Your task to perform on an android device: Show the shopping cart on costco. Add energizer triple a to the cart on costco Image 0: 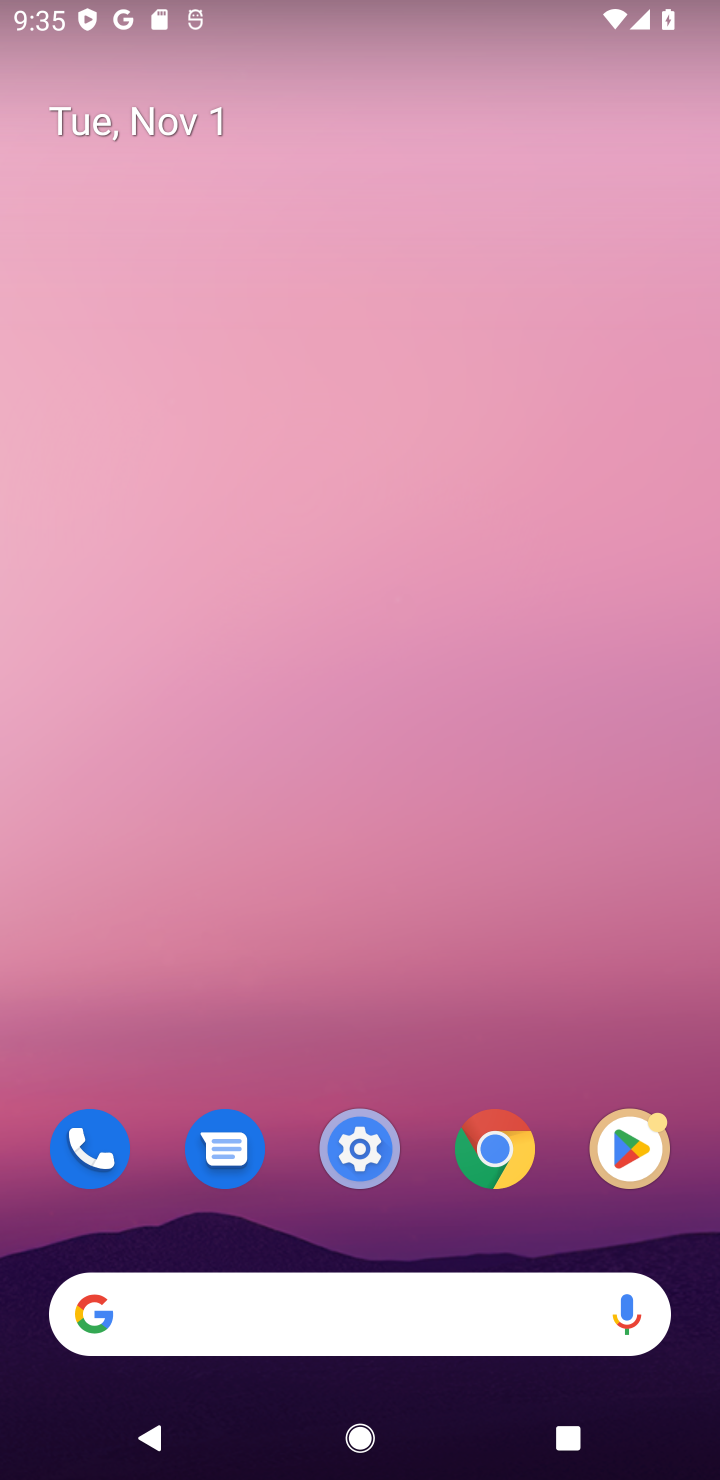
Step 0: press home button
Your task to perform on an android device: Show the shopping cart on costco. Add energizer triple a to the cart on costco Image 1: 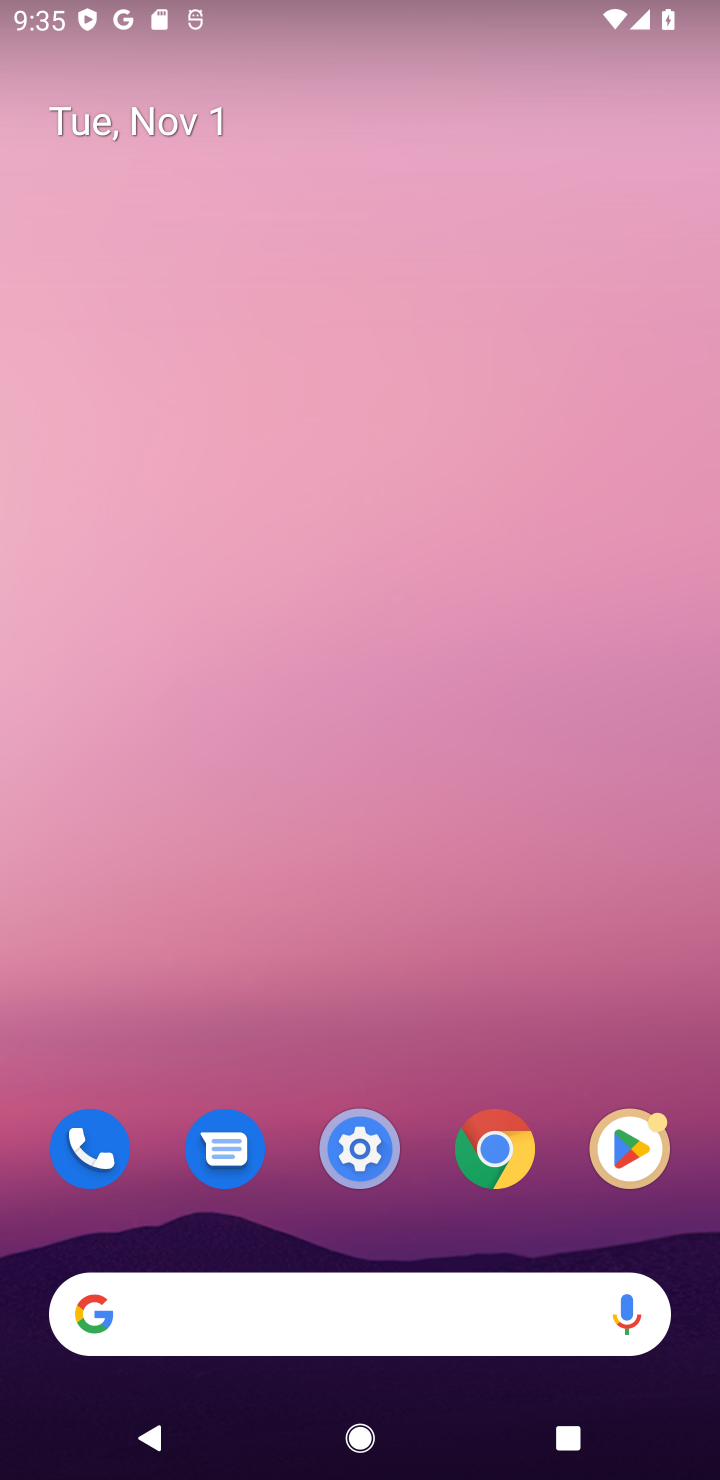
Step 1: click (152, 1314)
Your task to perform on an android device: Show the shopping cart on costco. Add energizer triple a to the cart on costco Image 2: 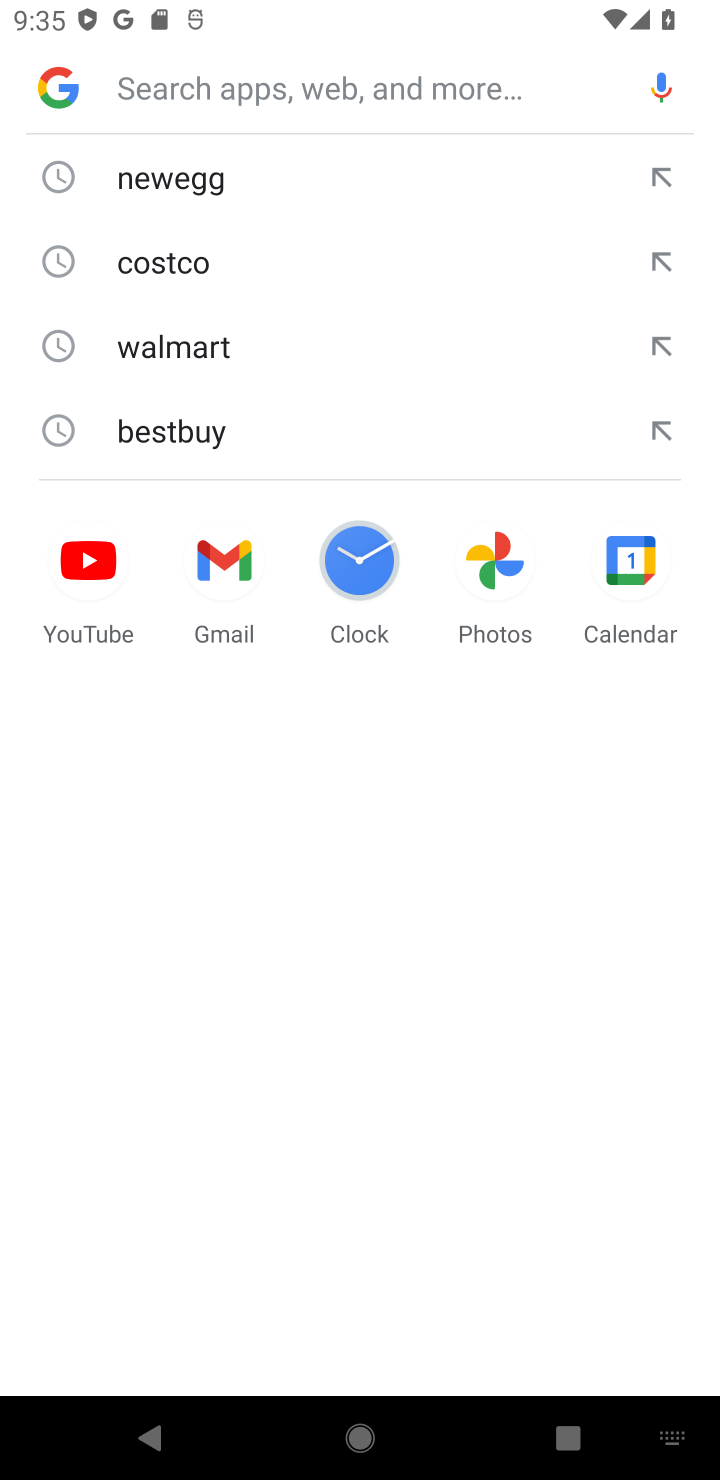
Step 2: type "costco"
Your task to perform on an android device: Show the shopping cart on costco. Add energizer triple a to the cart on costco Image 3: 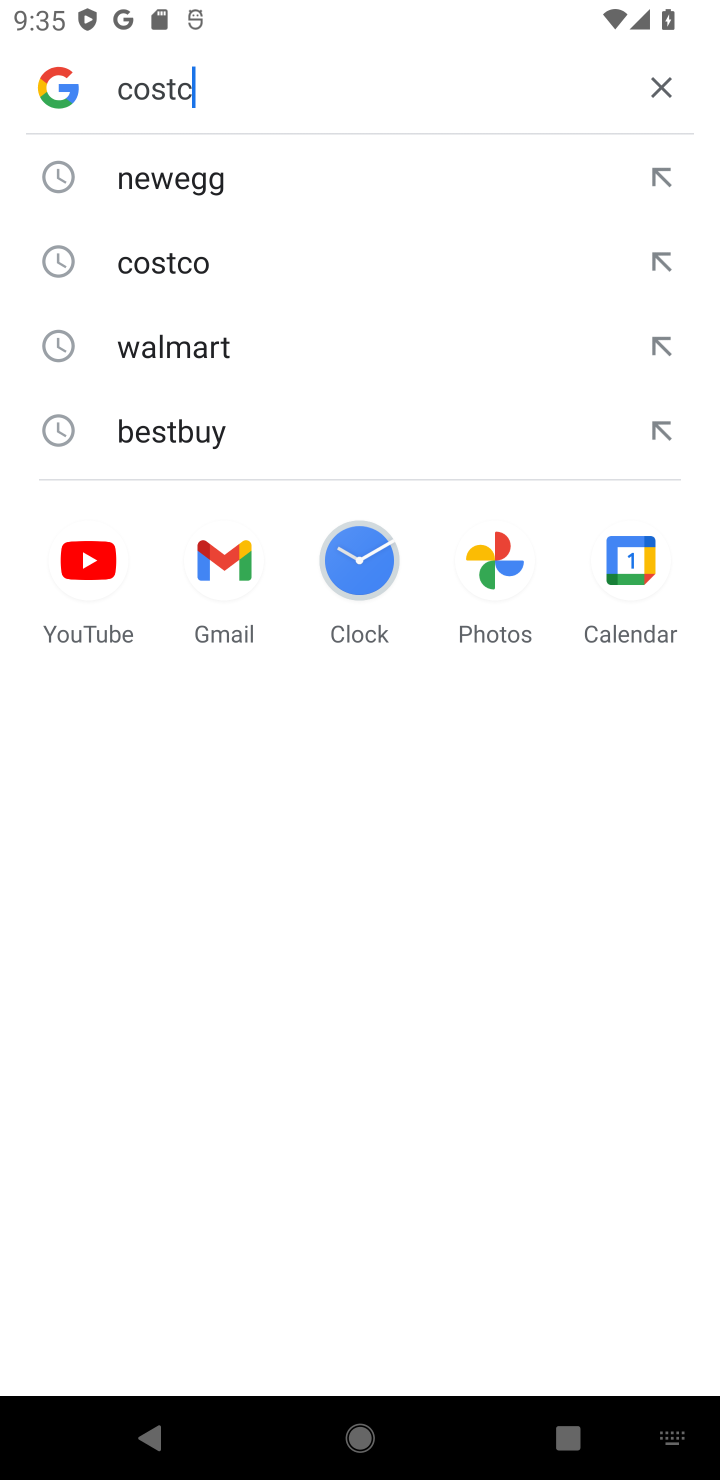
Step 3: press enter
Your task to perform on an android device: Show the shopping cart on costco. Add energizer triple a to the cart on costco Image 4: 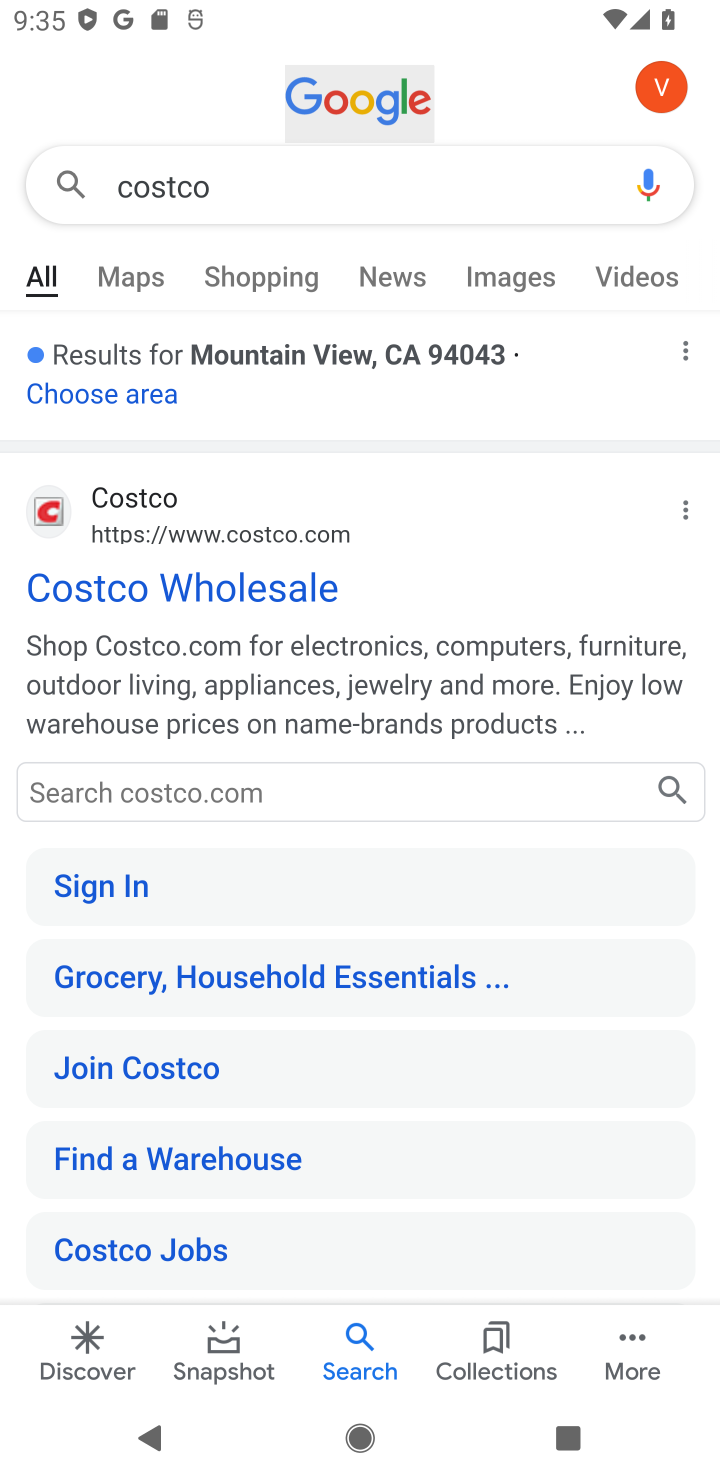
Step 4: click (193, 584)
Your task to perform on an android device: Show the shopping cart on costco. Add energizer triple a to the cart on costco Image 5: 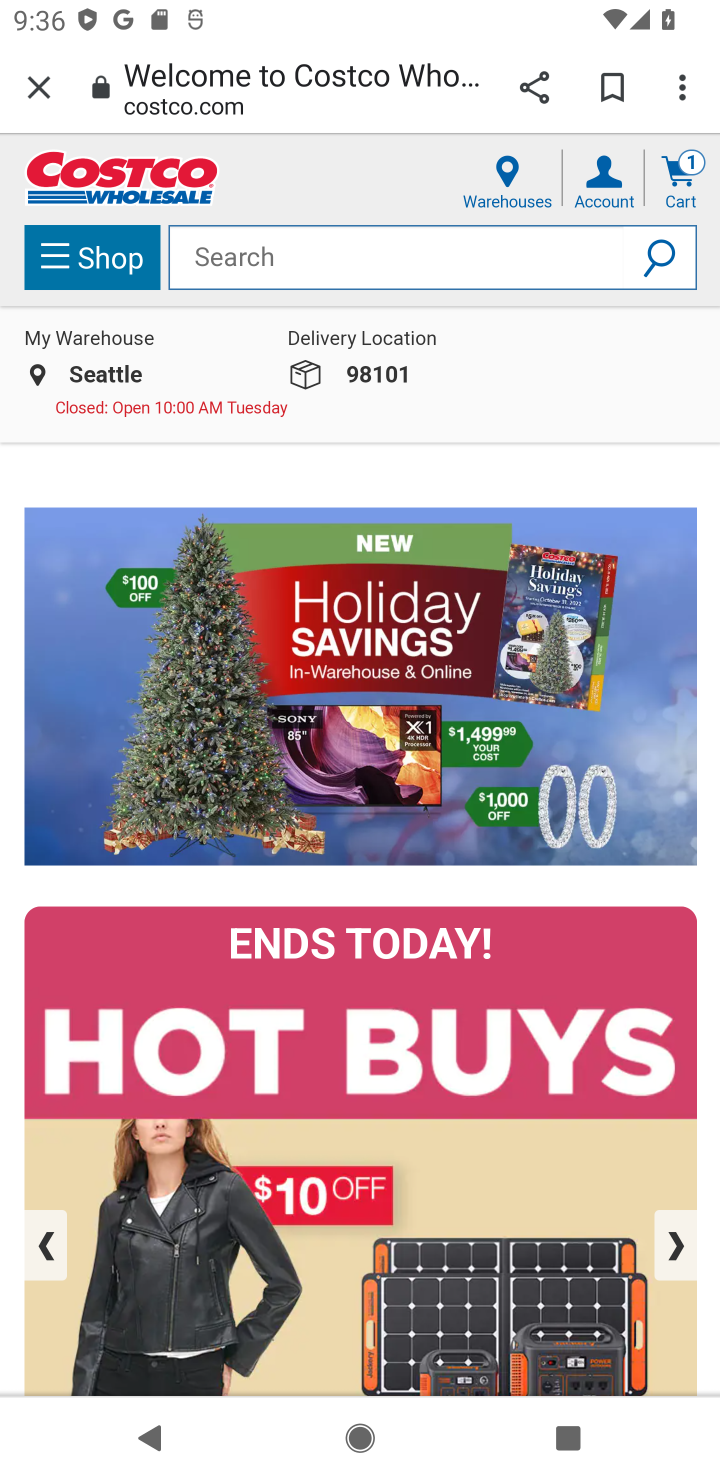
Step 5: click (682, 175)
Your task to perform on an android device: Show the shopping cart on costco. Add energizer triple a to the cart on costco Image 6: 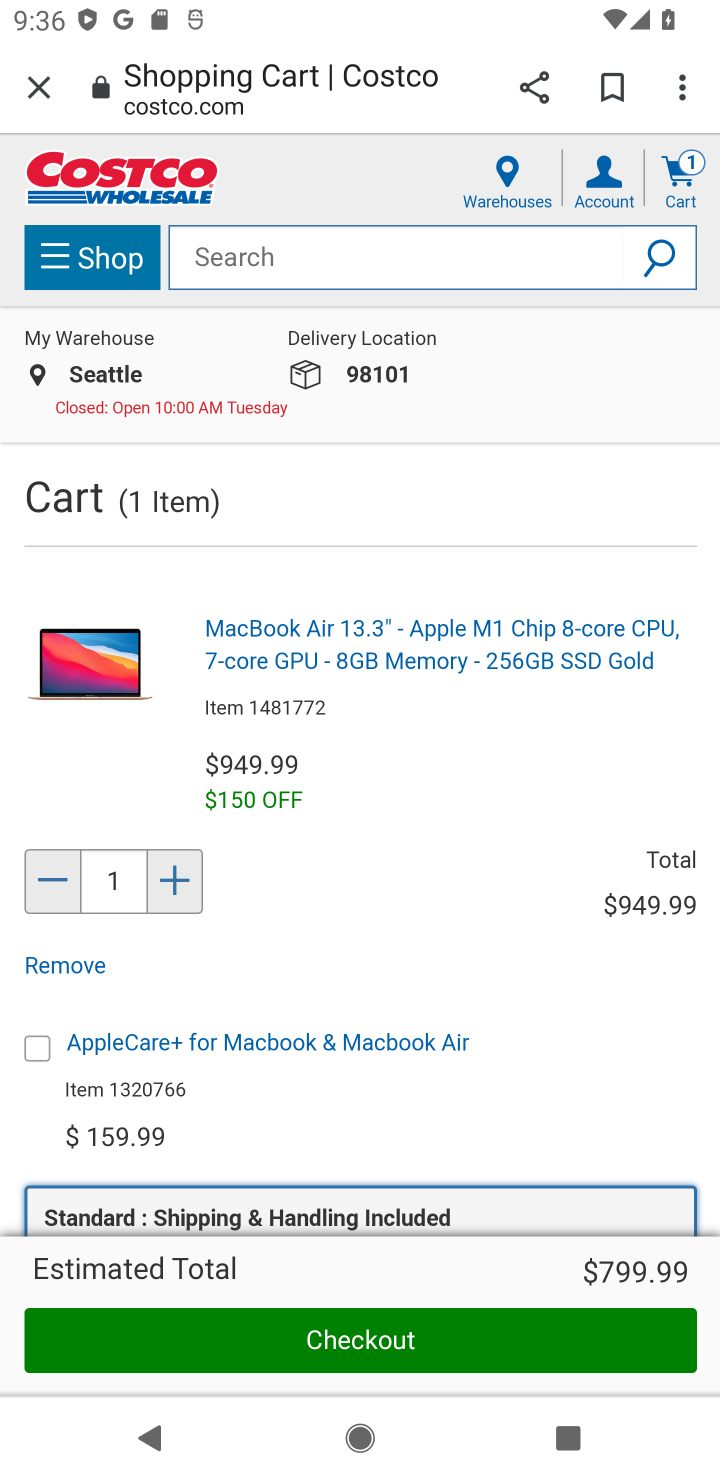
Step 6: click (234, 250)
Your task to perform on an android device: Show the shopping cart on costco. Add energizer triple a to the cart on costco Image 7: 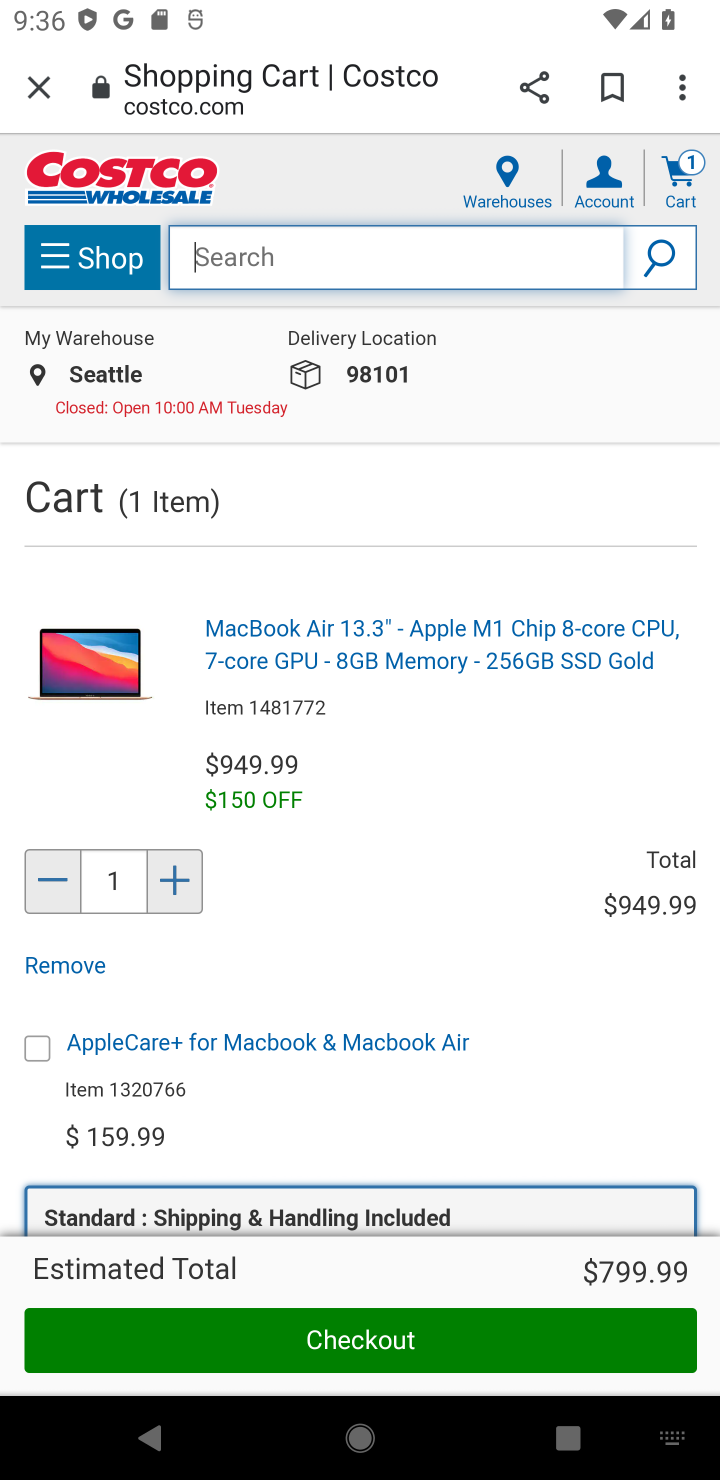
Step 7: type "energizer triple a"
Your task to perform on an android device: Show the shopping cart on costco. Add energizer triple a to the cart on costco Image 8: 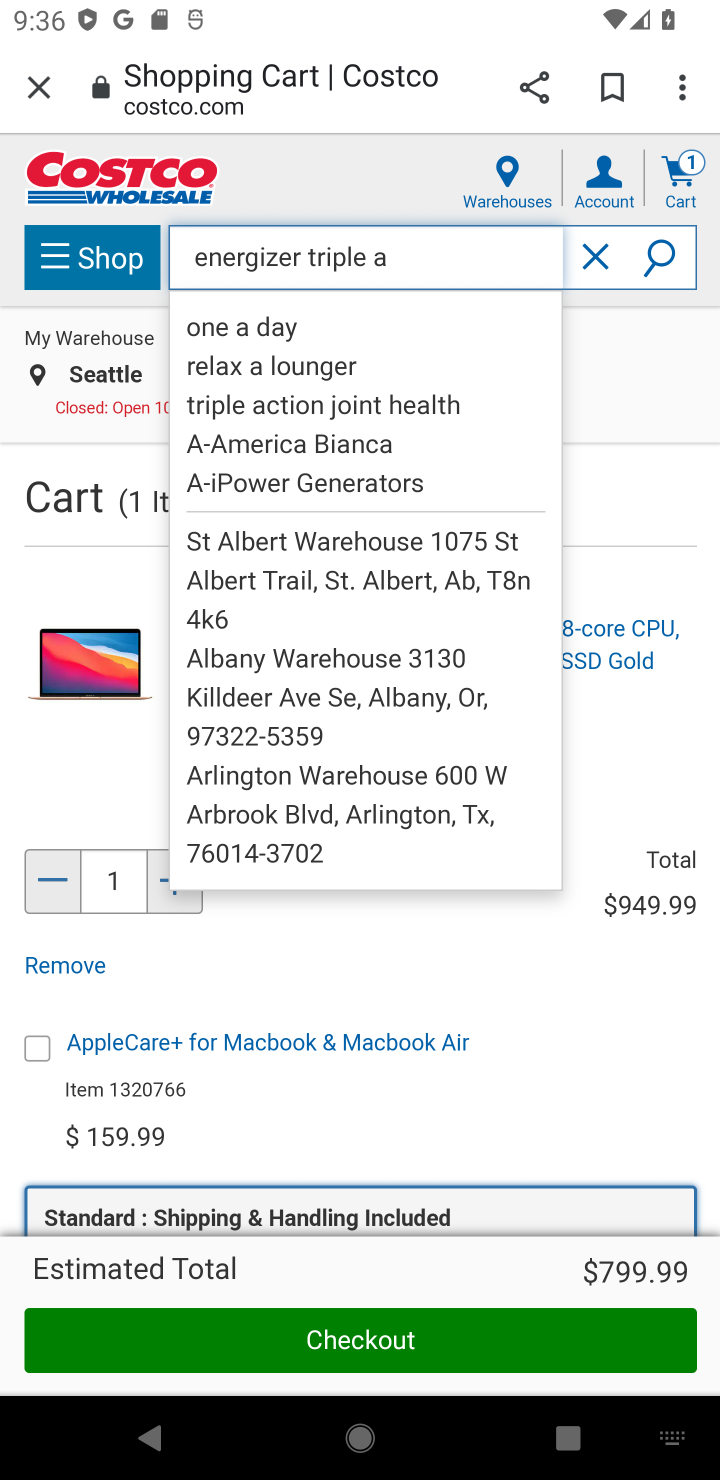
Step 8: click (667, 254)
Your task to perform on an android device: Show the shopping cart on costco. Add energizer triple a to the cart on costco Image 9: 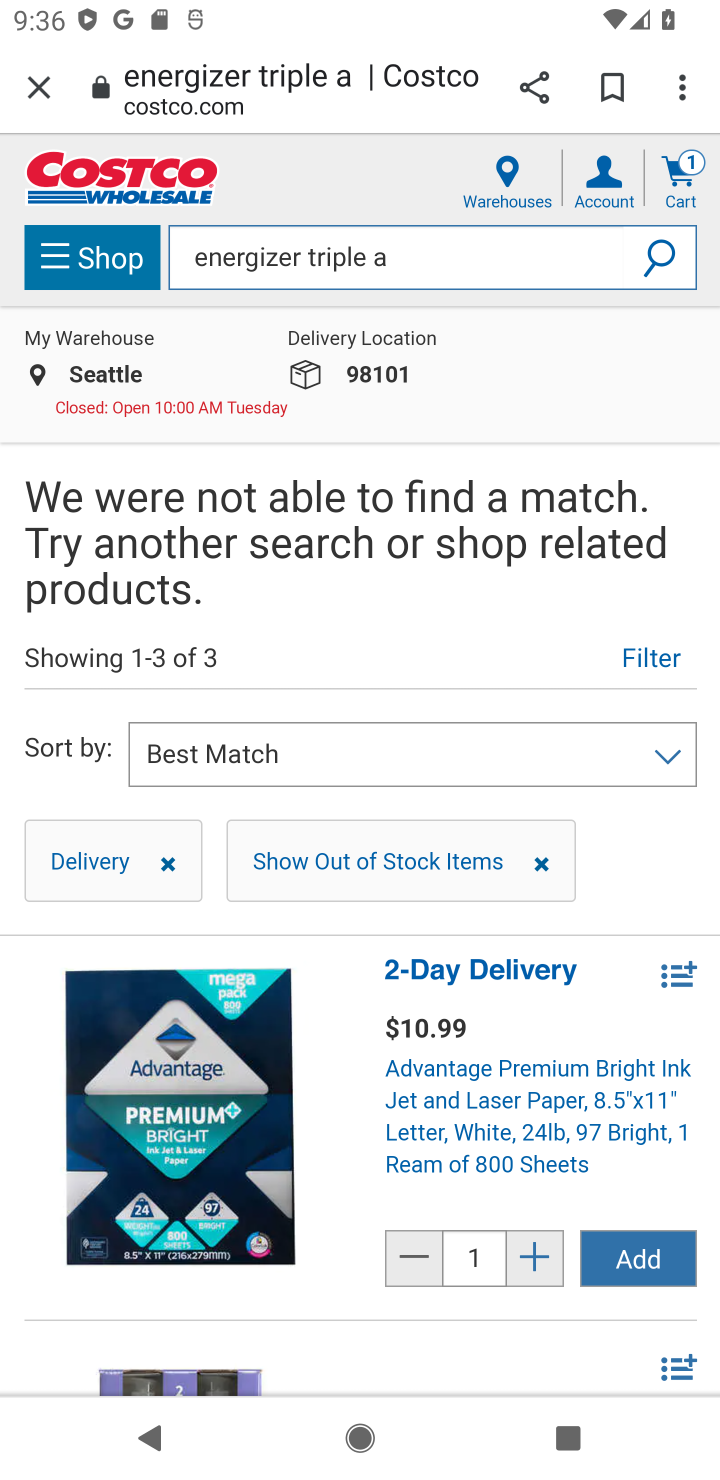
Step 9: task complete